Your task to perform on an android device: change the clock display to show seconds Image 0: 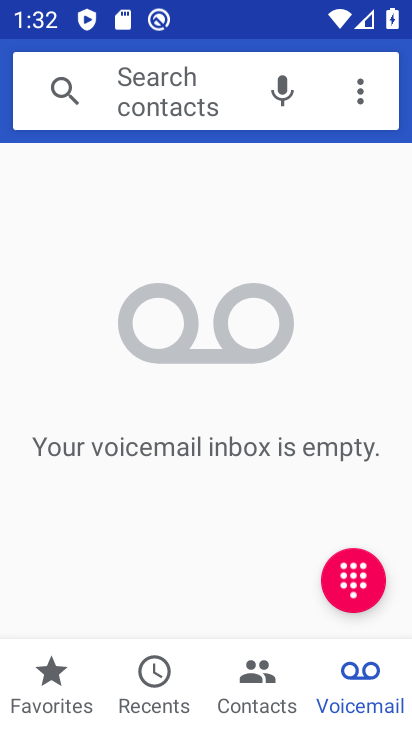
Step 0: press home button
Your task to perform on an android device: change the clock display to show seconds Image 1: 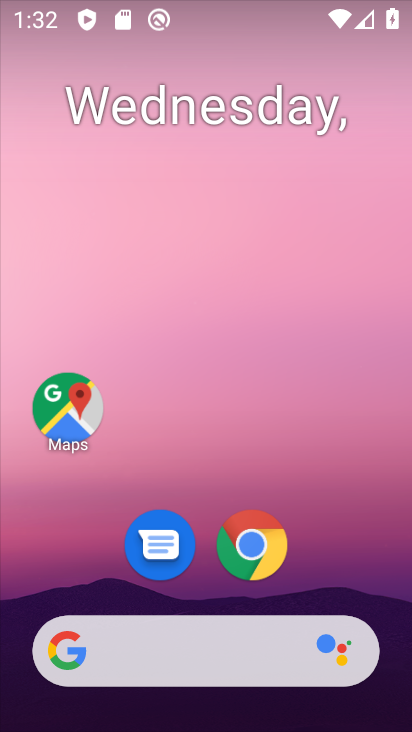
Step 1: drag from (214, 469) to (235, 7)
Your task to perform on an android device: change the clock display to show seconds Image 2: 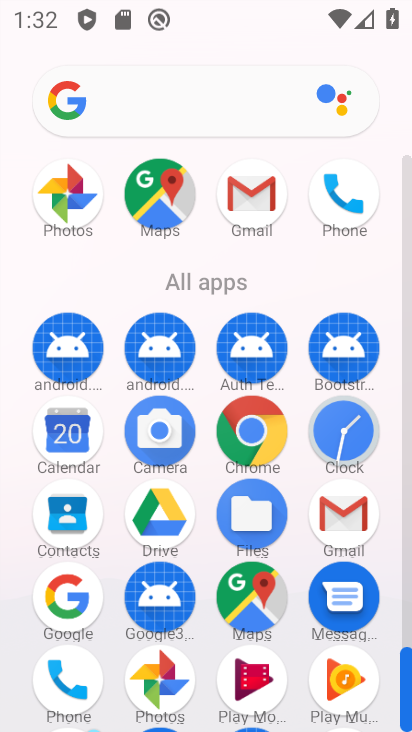
Step 2: drag from (206, 554) to (246, 171)
Your task to perform on an android device: change the clock display to show seconds Image 3: 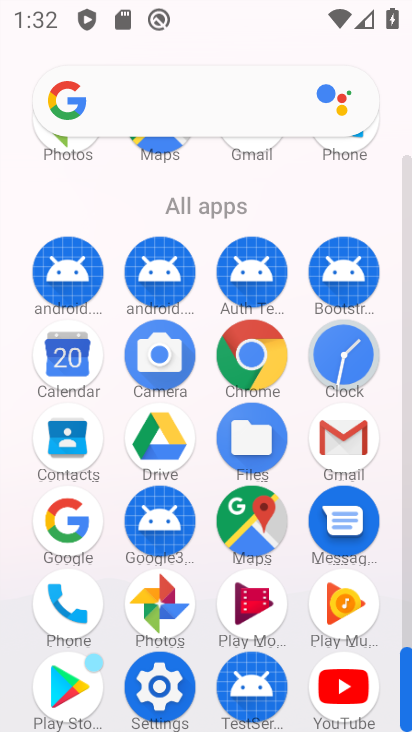
Step 3: click (348, 359)
Your task to perform on an android device: change the clock display to show seconds Image 4: 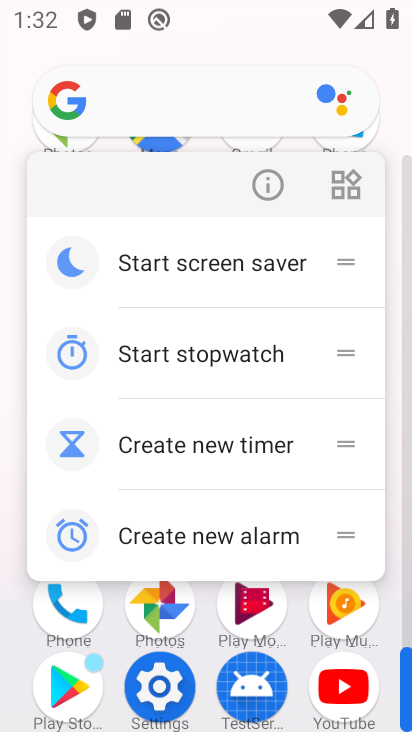
Step 4: click (405, 318)
Your task to perform on an android device: change the clock display to show seconds Image 5: 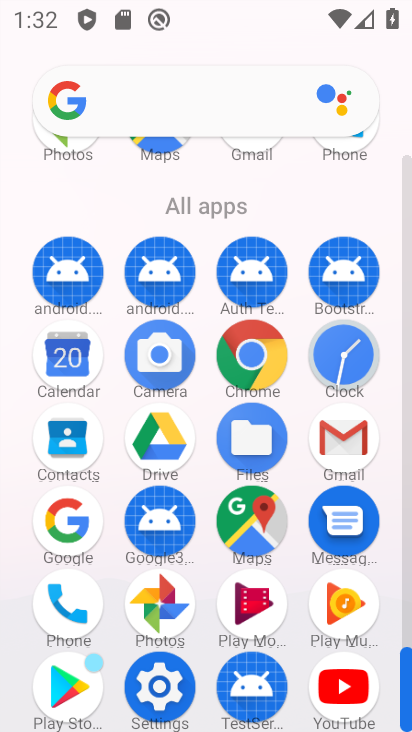
Step 5: click (340, 358)
Your task to perform on an android device: change the clock display to show seconds Image 6: 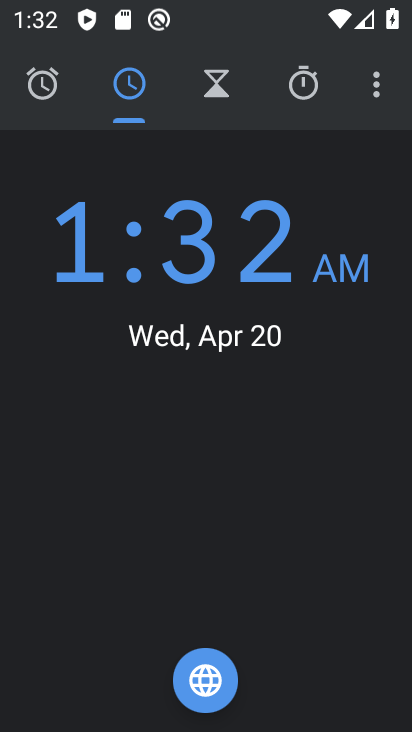
Step 6: click (372, 89)
Your task to perform on an android device: change the clock display to show seconds Image 7: 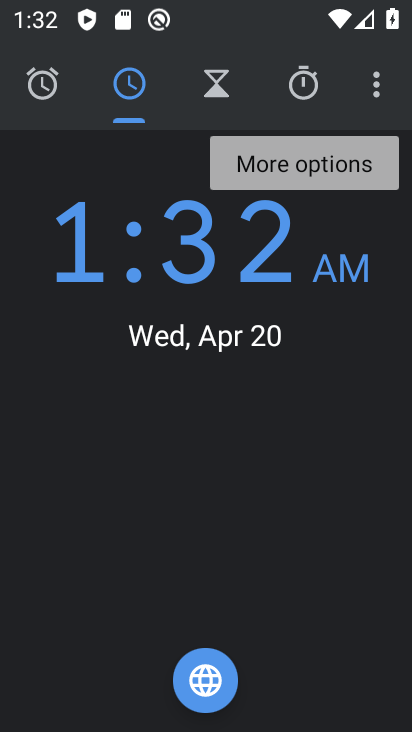
Step 7: click (357, 169)
Your task to perform on an android device: change the clock display to show seconds Image 8: 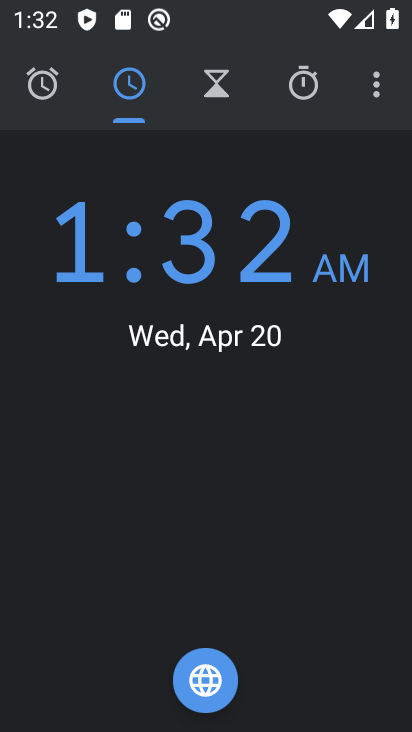
Step 8: click (384, 90)
Your task to perform on an android device: change the clock display to show seconds Image 9: 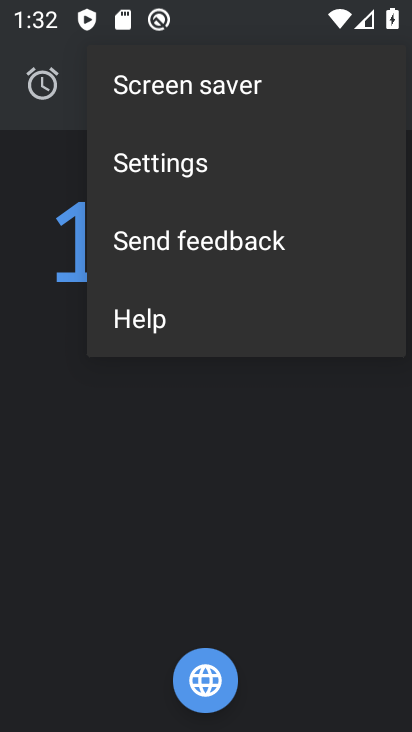
Step 9: click (211, 160)
Your task to perform on an android device: change the clock display to show seconds Image 10: 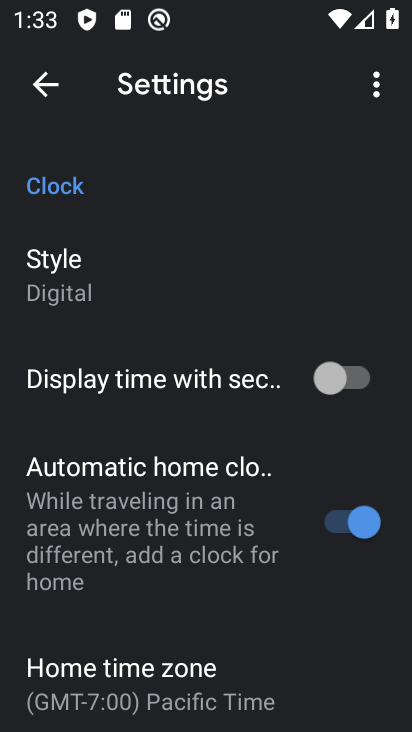
Step 10: drag from (141, 422) to (186, 272)
Your task to perform on an android device: change the clock display to show seconds Image 11: 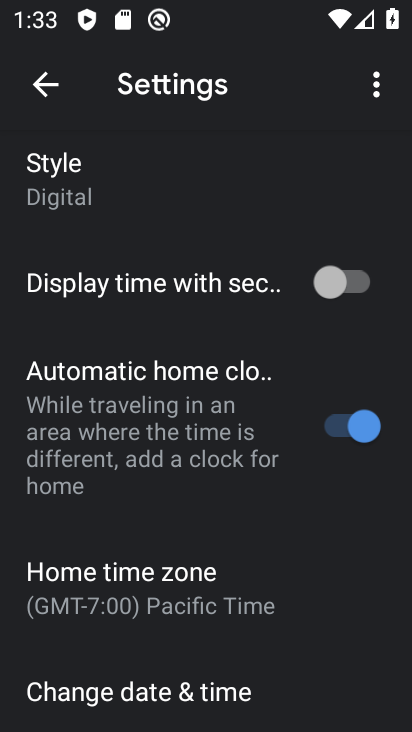
Step 11: click (328, 278)
Your task to perform on an android device: change the clock display to show seconds Image 12: 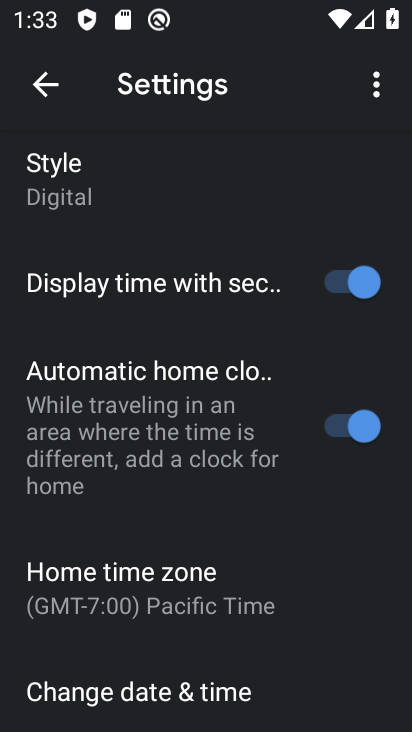
Step 12: task complete